Your task to perform on an android device: allow cookies in the chrome app Image 0: 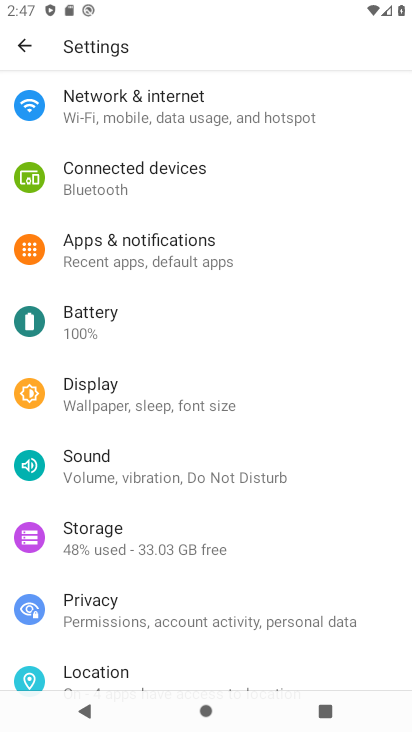
Step 0: press home button
Your task to perform on an android device: allow cookies in the chrome app Image 1: 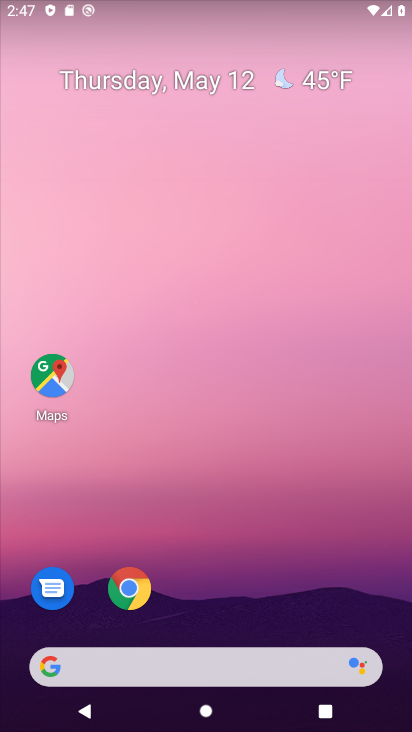
Step 1: click (138, 597)
Your task to perform on an android device: allow cookies in the chrome app Image 2: 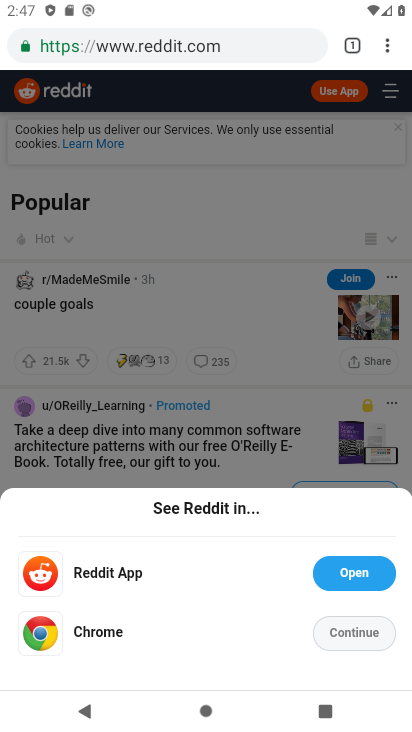
Step 2: click (359, 641)
Your task to perform on an android device: allow cookies in the chrome app Image 3: 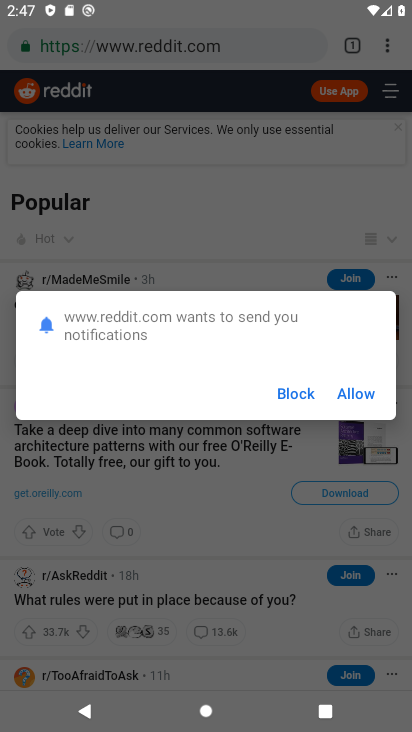
Step 3: click (293, 394)
Your task to perform on an android device: allow cookies in the chrome app Image 4: 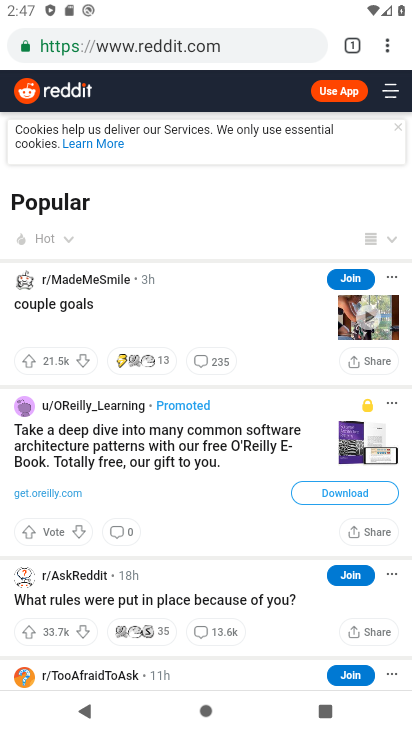
Step 4: click (390, 47)
Your task to perform on an android device: allow cookies in the chrome app Image 5: 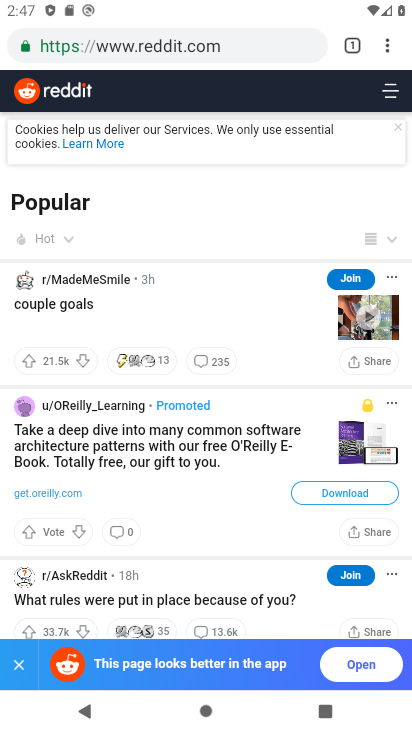
Step 5: click (387, 47)
Your task to perform on an android device: allow cookies in the chrome app Image 6: 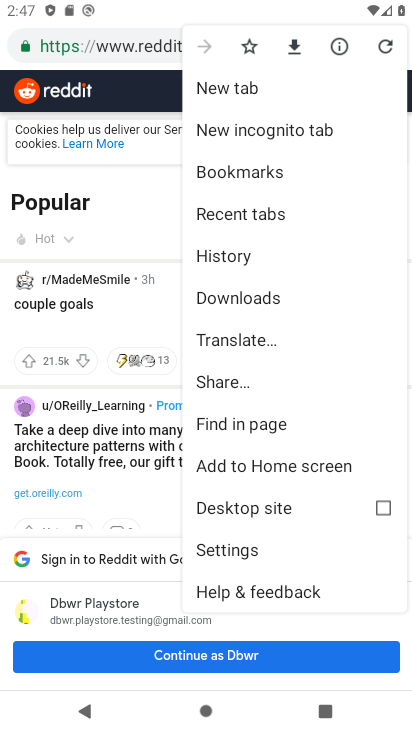
Step 6: click (224, 546)
Your task to perform on an android device: allow cookies in the chrome app Image 7: 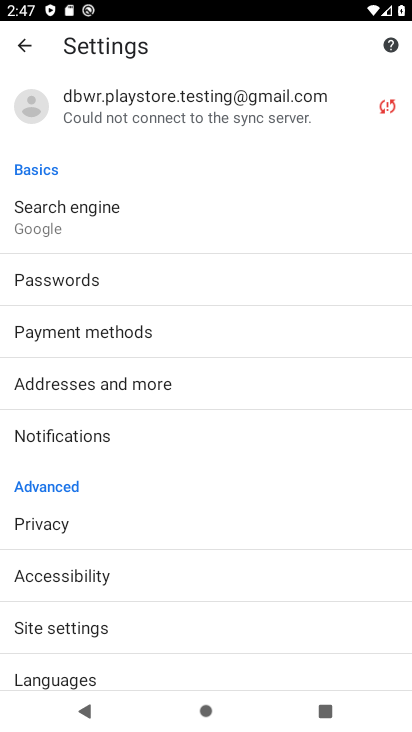
Step 7: click (80, 633)
Your task to perform on an android device: allow cookies in the chrome app Image 8: 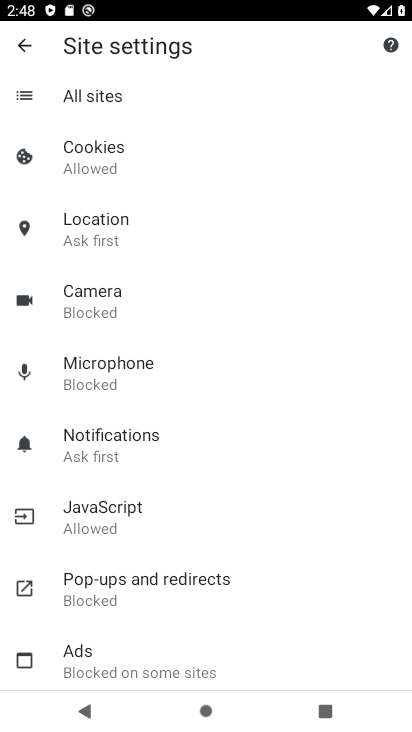
Step 8: drag from (160, 627) to (248, 318)
Your task to perform on an android device: allow cookies in the chrome app Image 9: 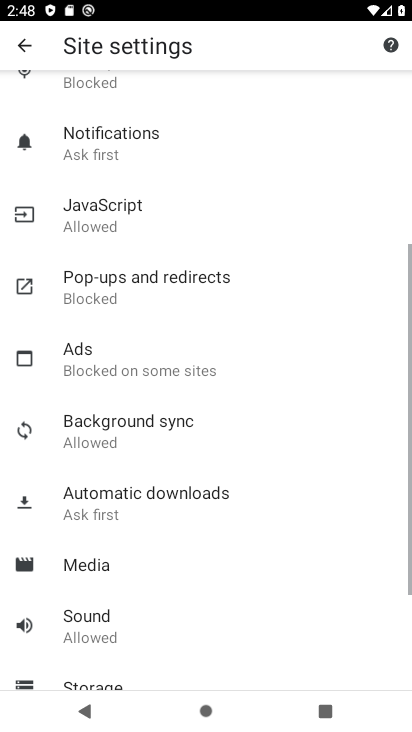
Step 9: drag from (230, 273) to (218, 583)
Your task to perform on an android device: allow cookies in the chrome app Image 10: 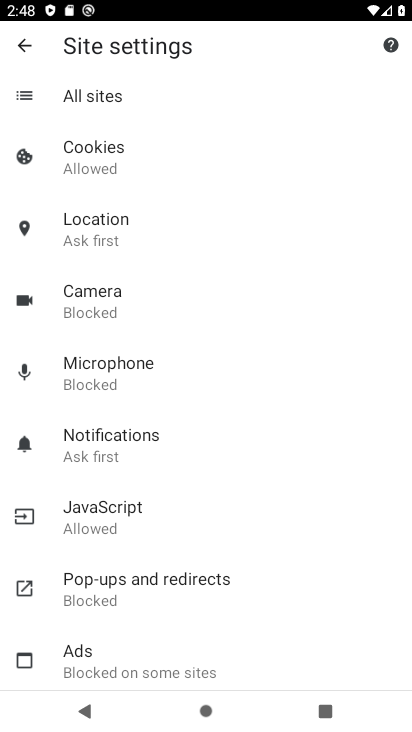
Step 10: click (93, 173)
Your task to perform on an android device: allow cookies in the chrome app Image 11: 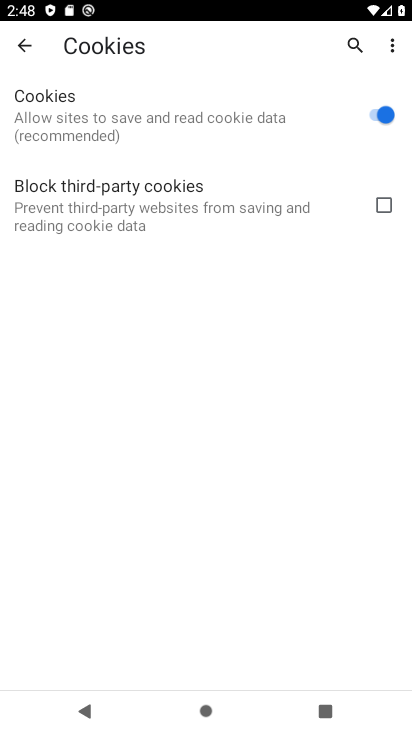
Step 11: task complete